Your task to perform on an android device: delete location history Image 0: 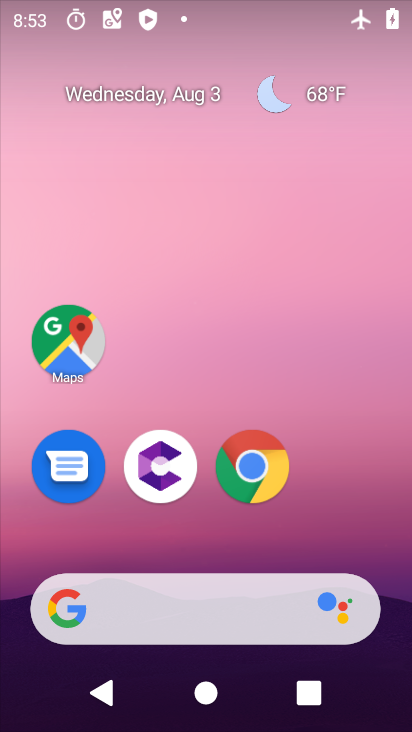
Step 0: drag from (313, 492) to (307, 68)
Your task to perform on an android device: delete location history Image 1: 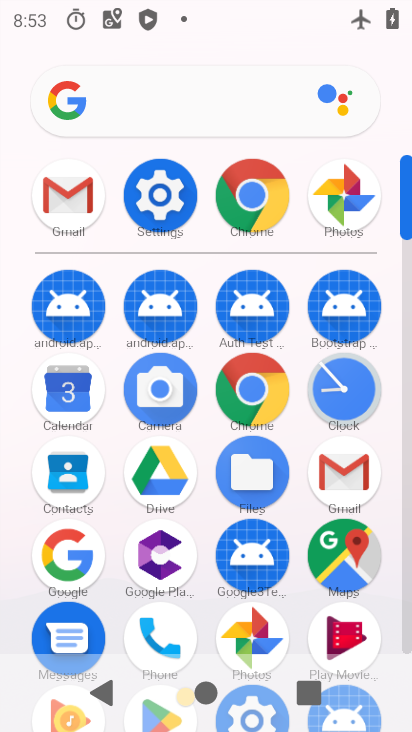
Step 1: click (344, 547)
Your task to perform on an android device: delete location history Image 2: 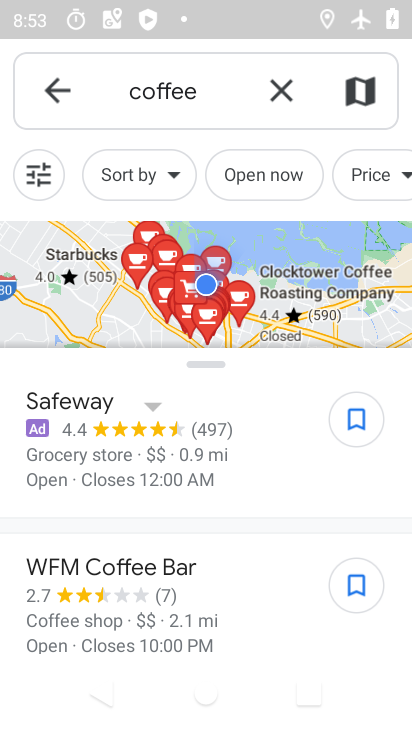
Step 2: click (54, 76)
Your task to perform on an android device: delete location history Image 3: 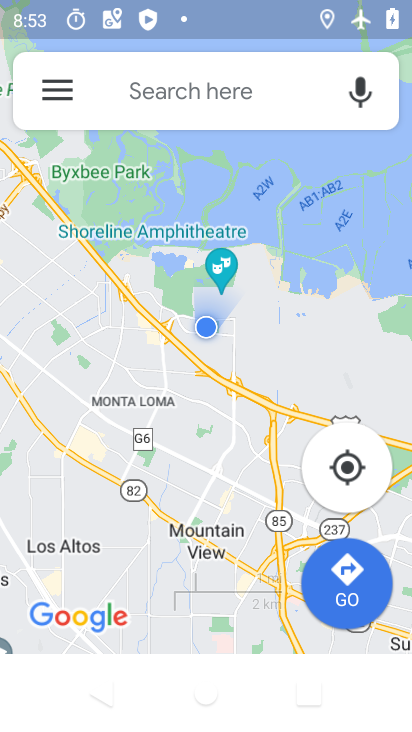
Step 3: click (50, 84)
Your task to perform on an android device: delete location history Image 4: 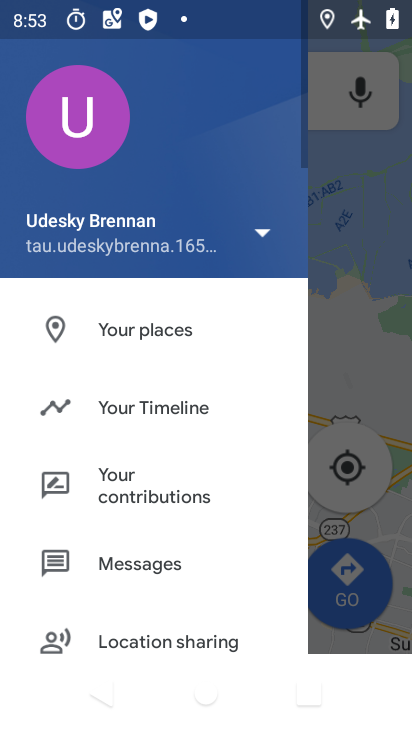
Step 4: drag from (186, 574) to (260, 137)
Your task to perform on an android device: delete location history Image 5: 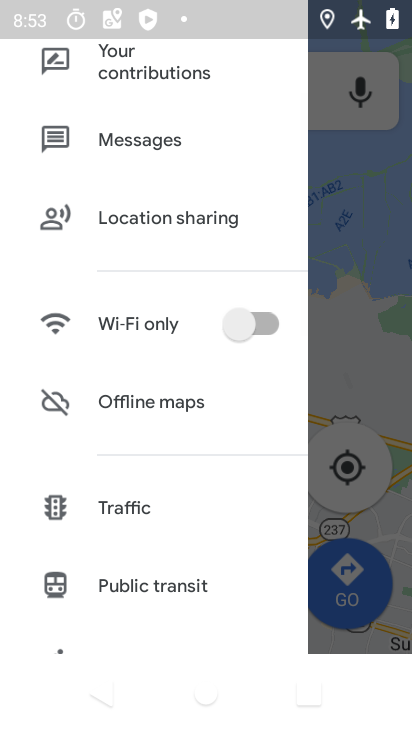
Step 5: drag from (157, 524) to (193, 129)
Your task to perform on an android device: delete location history Image 6: 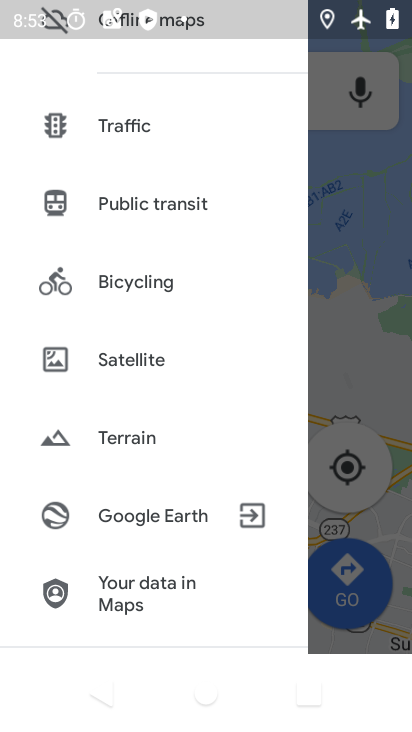
Step 6: drag from (116, 514) to (173, 176)
Your task to perform on an android device: delete location history Image 7: 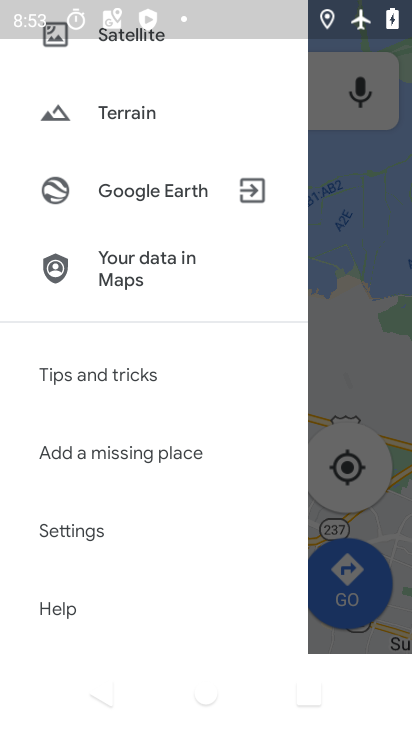
Step 7: click (90, 524)
Your task to perform on an android device: delete location history Image 8: 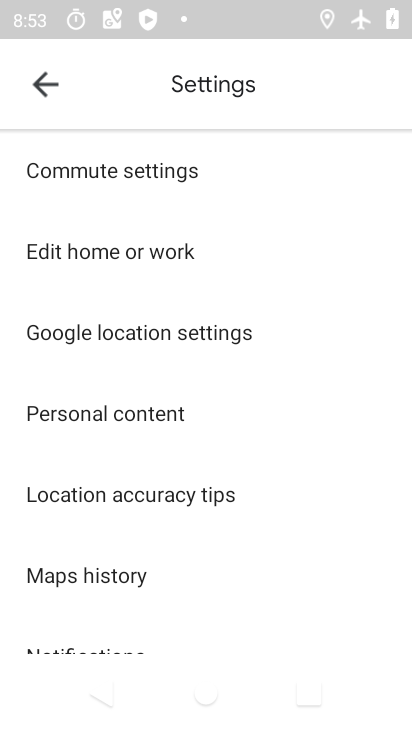
Step 8: click (85, 574)
Your task to perform on an android device: delete location history Image 9: 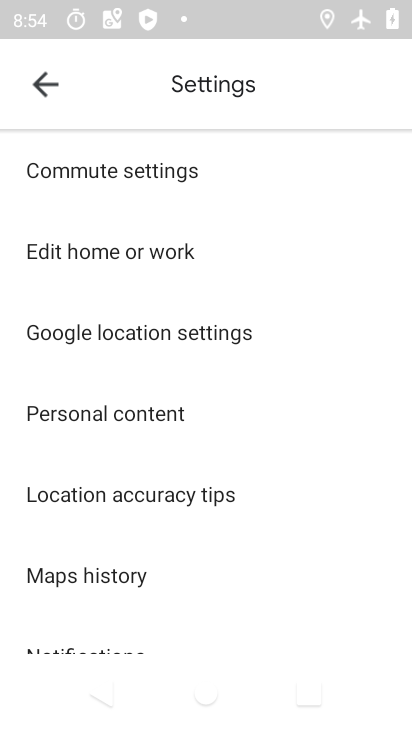
Step 9: task complete